Your task to perform on an android device: open chrome and create a bookmark for the current page Image 0: 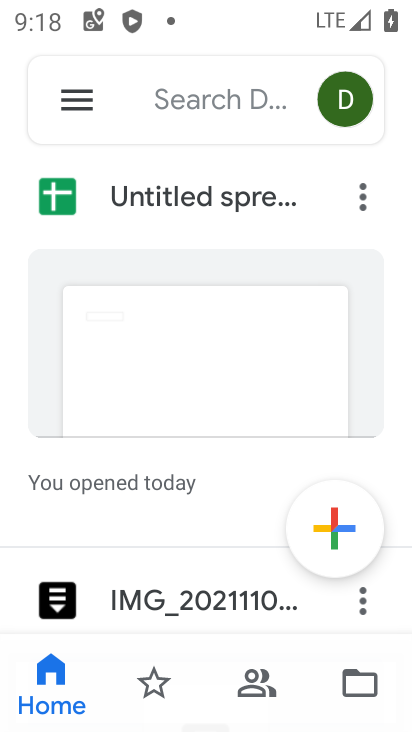
Step 0: press home button
Your task to perform on an android device: open chrome and create a bookmark for the current page Image 1: 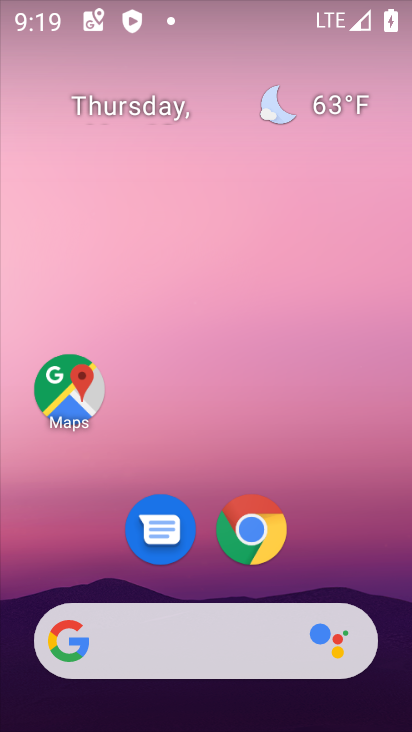
Step 1: click (261, 550)
Your task to perform on an android device: open chrome and create a bookmark for the current page Image 2: 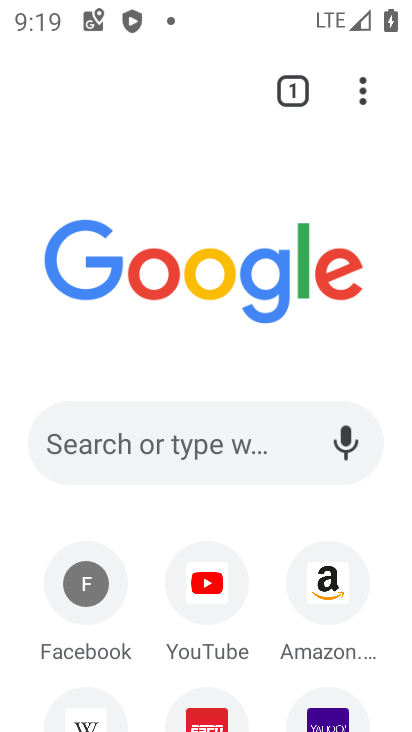
Step 2: click (373, 108)
Your task to perform on an android device: open chrome and create a bookmark for the current page Image 3: 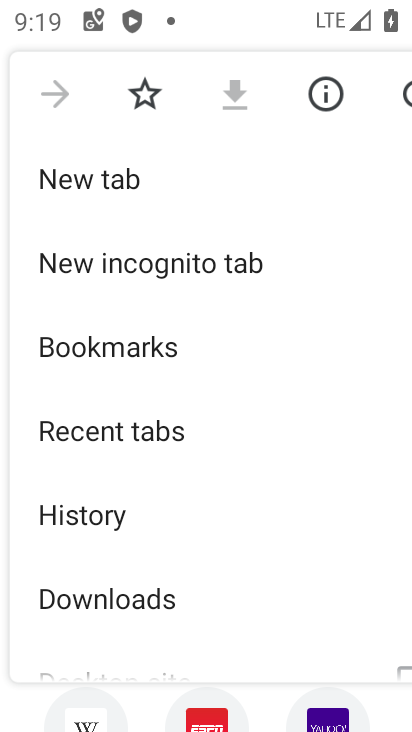
Step 3: click (149, 94)
Your task to perform on an android device: open chrome and create a bookmark for the current page Image 4: 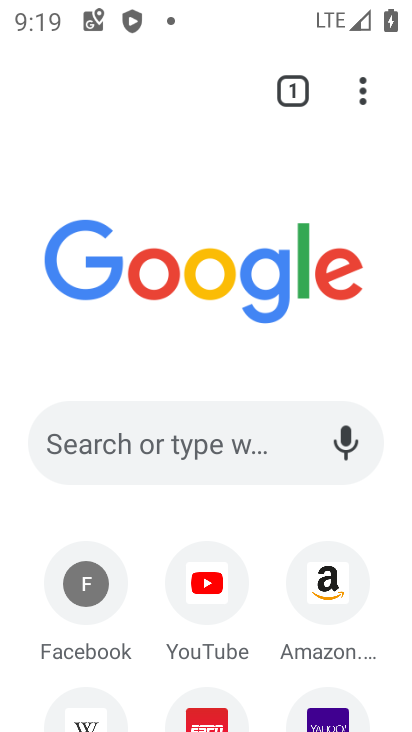
Step 4: task complete